Your task to perform on an android device: Open Google Image 0: 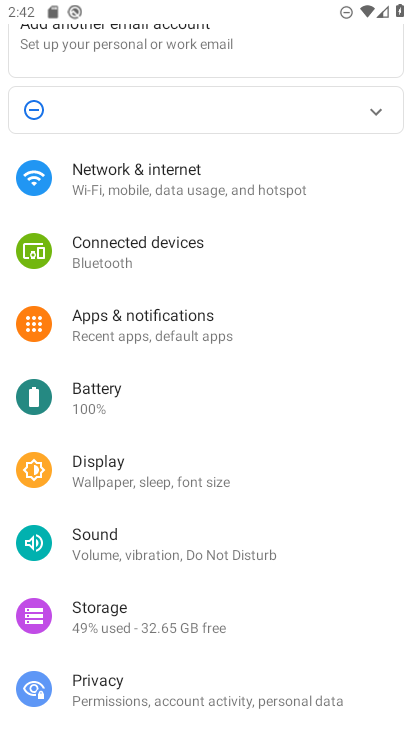
Step 0: press home button
Your task to perform on an android device: Open Google Image 1: 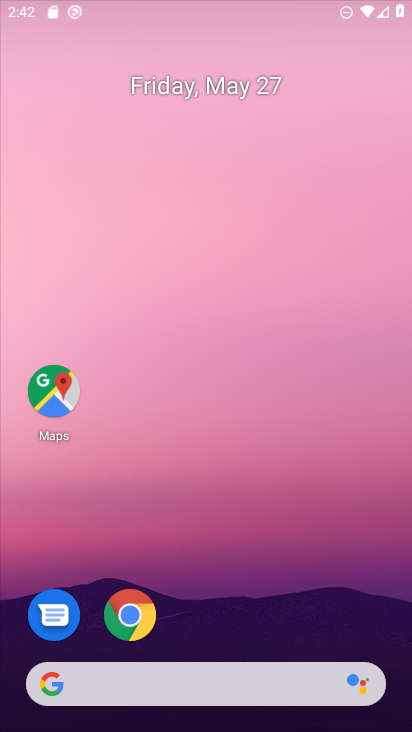
Step 1: drag from (257, 393) to (126, 1)
Your task to perform on an android device: Open Google Image 2: 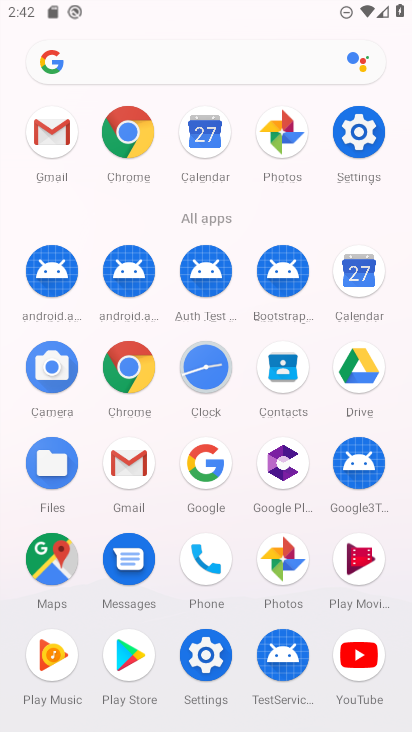
Step 2: click (205, 479)
Your task to perform on an android device: Open Google Image 3: 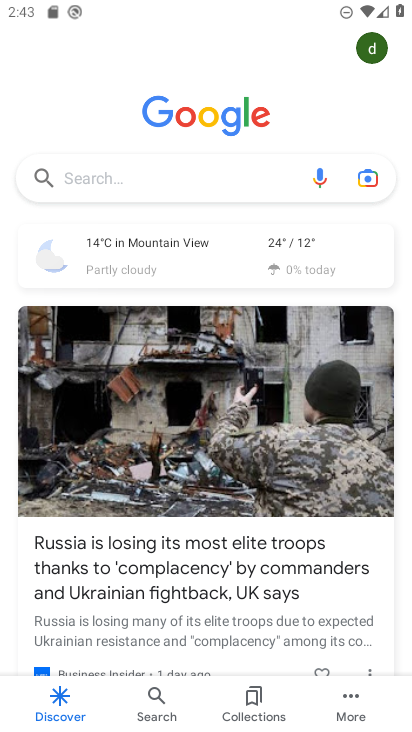
Step 3: task complete